Your task to perform on an android device: delete browsing data in the chrome app Image 0: 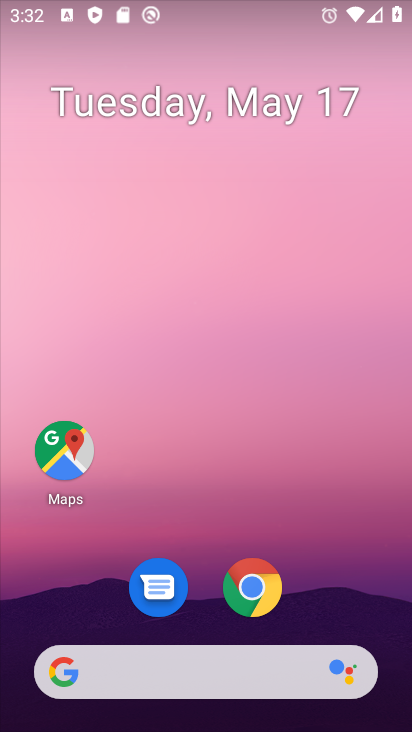
Step 0: drag from (202, 641) to (264, 201)
Your task to perform on an android device: delete browsing data in the chrome app Image 1: 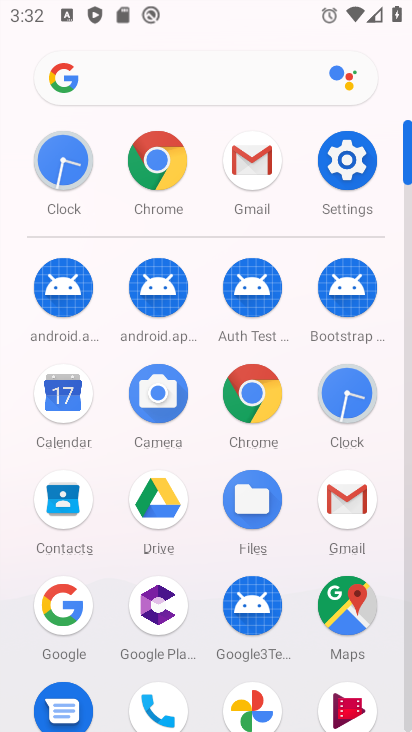
Step 1: click (249, 390)
Your task to perform on an android device: delete browsing data in the chrome app Image 2: 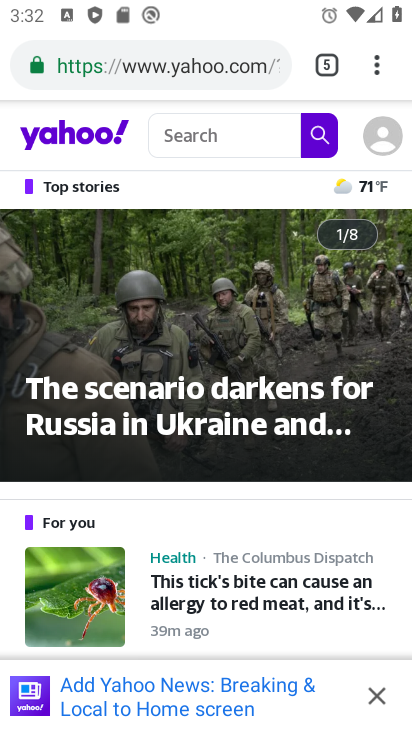
Step 2: click (373, 69)
Your task to perform on an android device: delete browsing data in the chrome app Image 3: 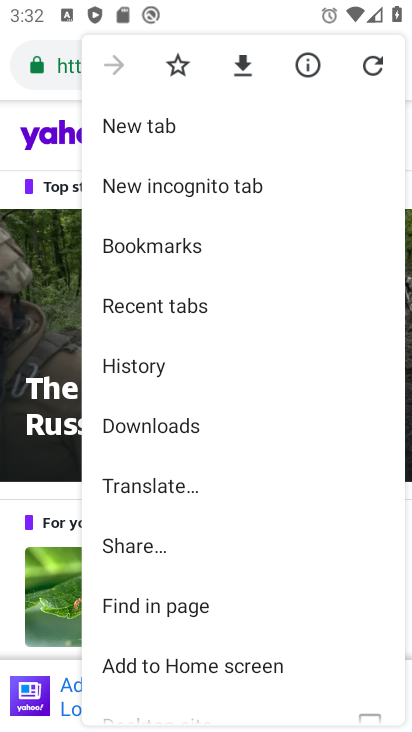
Step 3: drag from (264, 612) to (303, 148)
Your task to perform on an android device: delete browsing data in the chrome app Image 4: 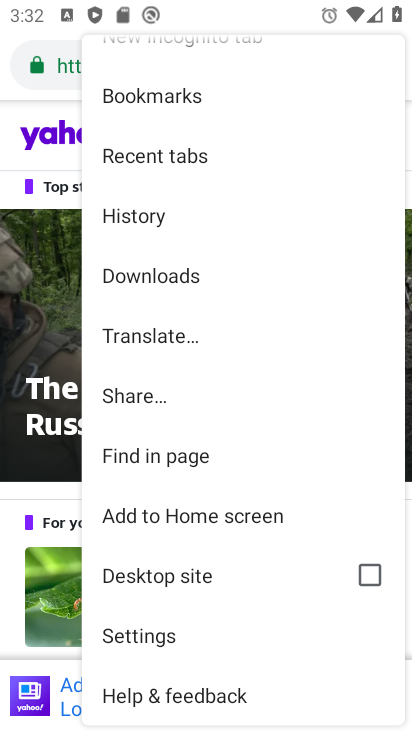
Step 4: drag from (208, 636) to (273, 259)
Your task to perform on an android device: delete browsing data in the chrome app Image 5: 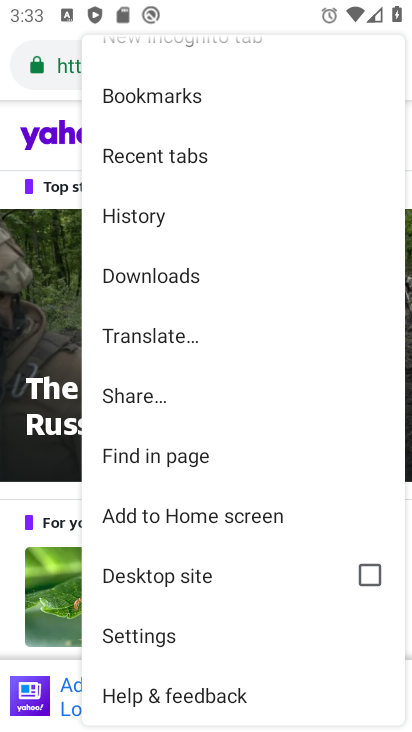
Step 5: click (173, 220)
Your task to perform on an android device: delete browsing data in the chrome app Image 6: 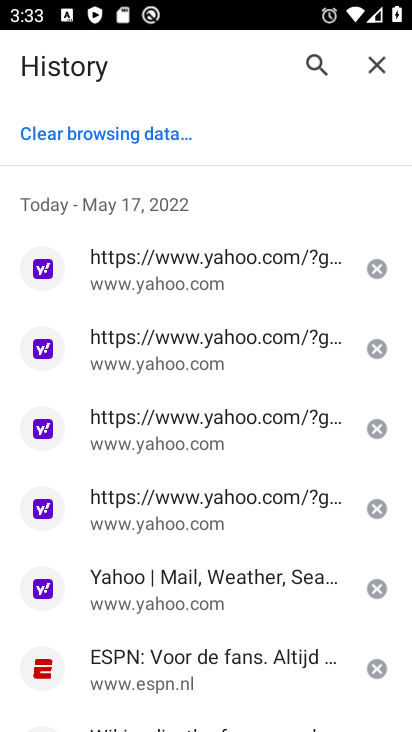
Step 6: click (87, 135)
Your task to perform on an android device: delete browsing data in the chrome app Image 7: 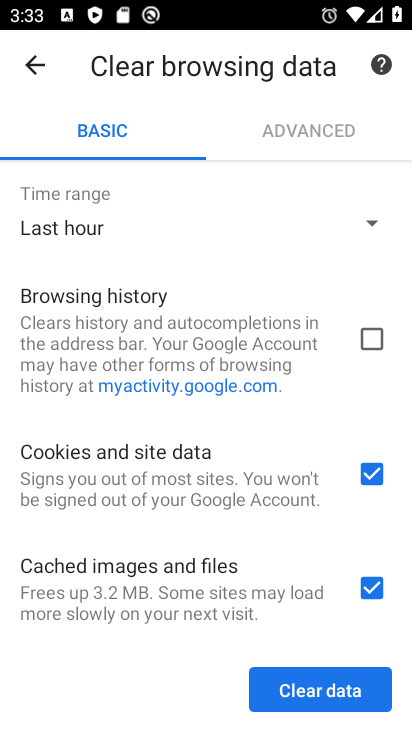
Step 7: click (371, 338)
Your task to perform on an android device: delete browsing data in the chrome app Image 8: 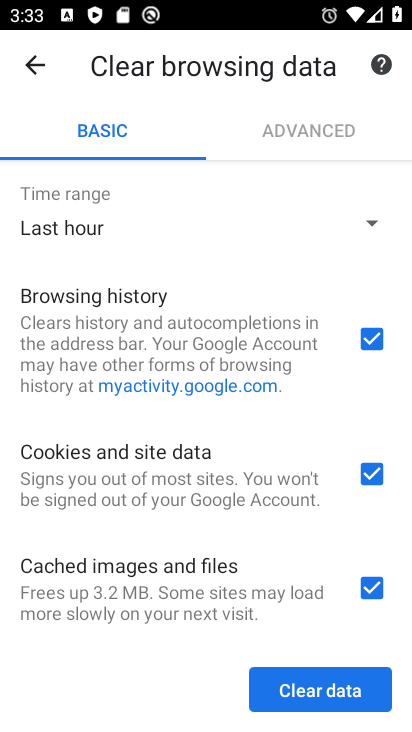
Step 8: click (307, 710)
Your task to perform on an android device: delete browsing data in the chrome app Image 9: 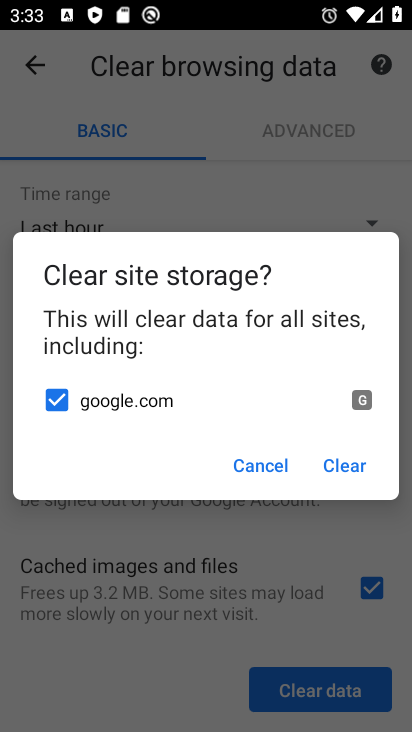
Step 9: click (341, 463)
Your task to perform on an android device: delete browsing data in the chrome app Image 10: 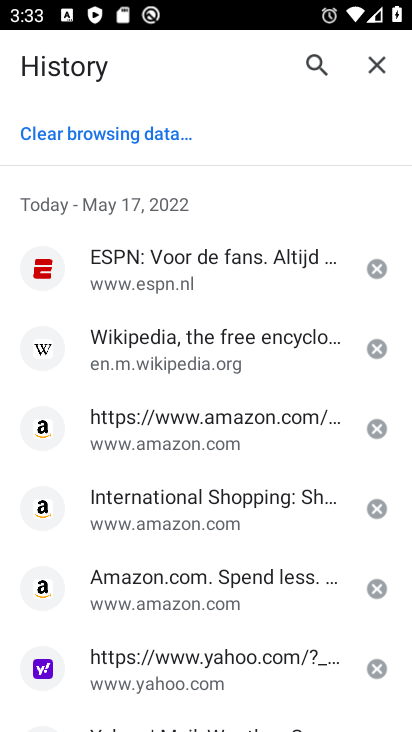
Step 10: task complete